Your task to perform on an android device: find which apps use the phone's location Image 0: 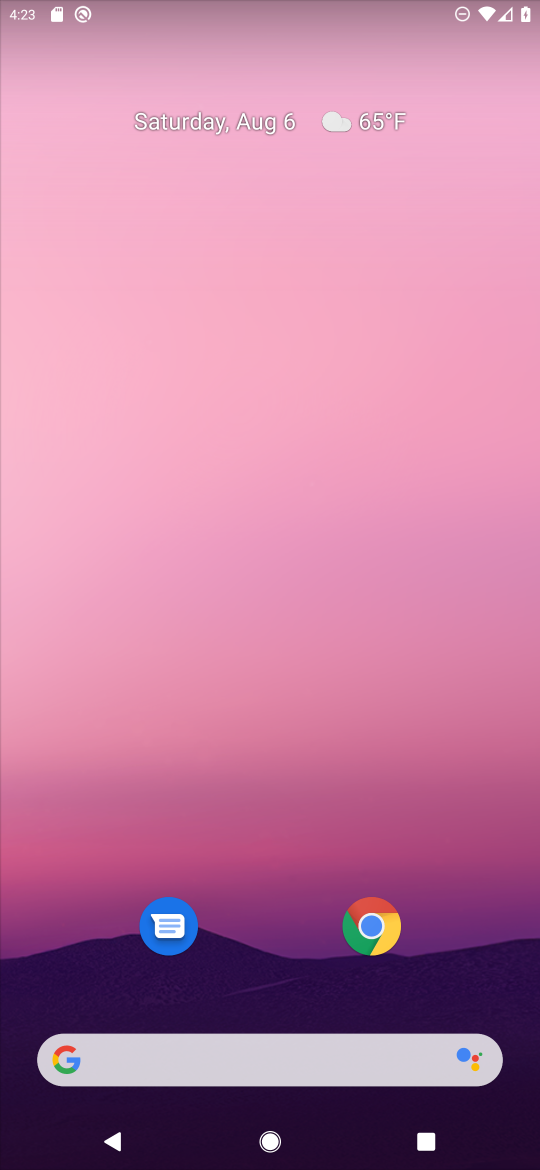
Step 0: drag from (257, 907) to (264, 226)
Your task to perform on an android device: find which apps use the phone's location Image 1: 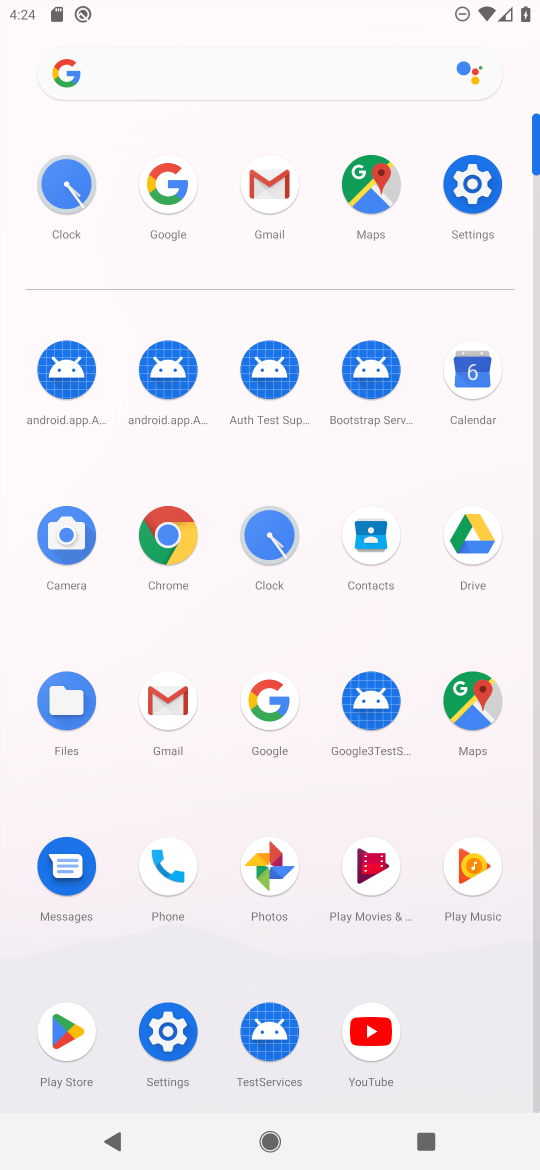
Step 1: click (447, 188)
Your task to perform on an android device: find which apps use the phone's location Image 2: 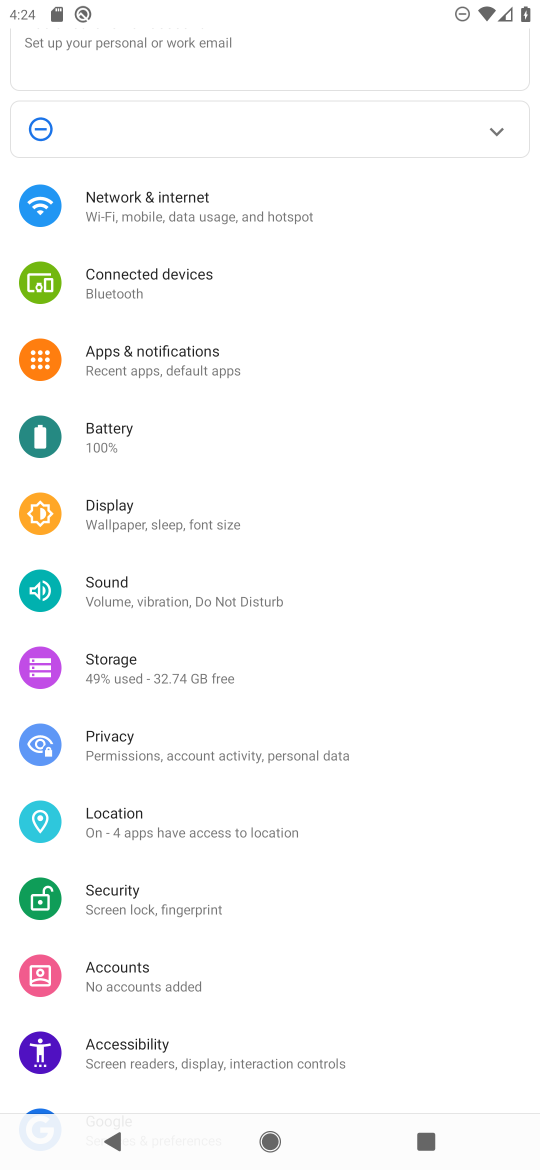
Step 2: click (189, 830)
Your task to perform on an android device: find which apps use the phone's location Image 3: 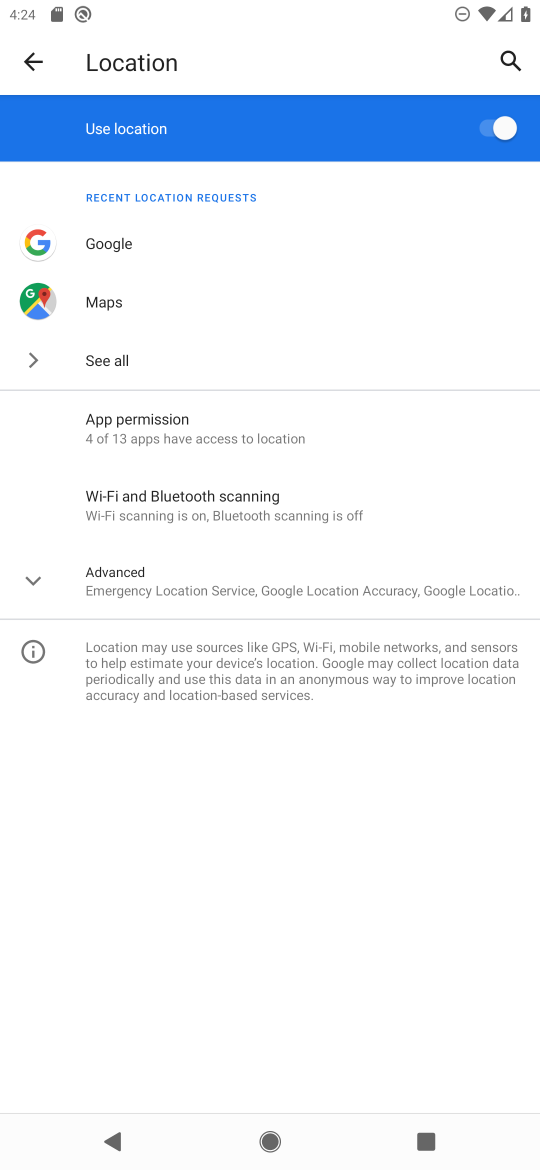
Step 3: click (263, 433)
Your task to perform on an android device: find which apps use the phone's location Image 4: 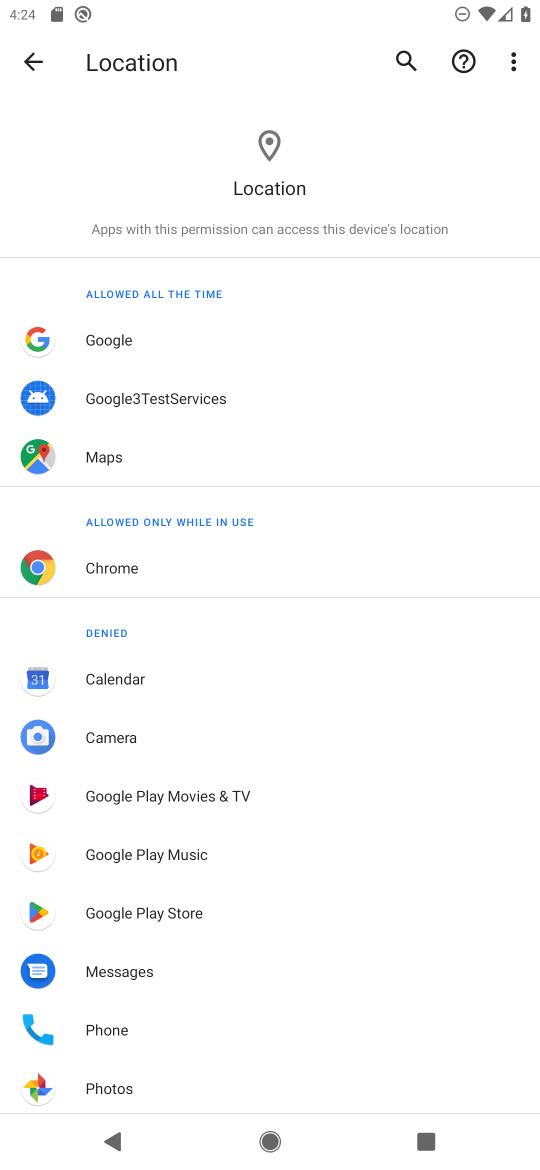
Step 4: task complete